Your task to perform on an android device: turn off javascript in the chrome app Image 0: 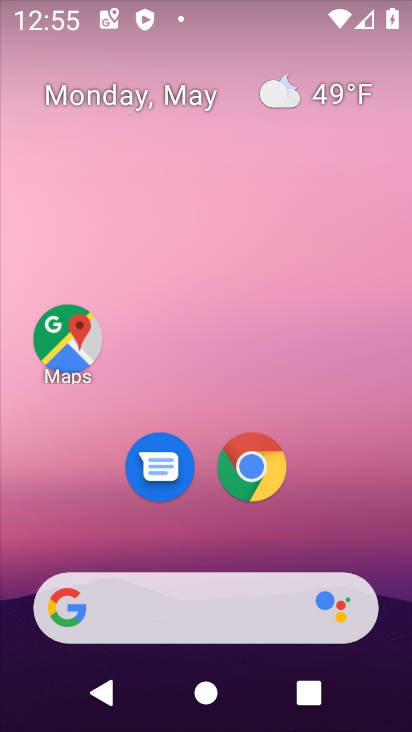
Step 0: drag from (352, 496) to (287, 138)
Your task to perform on an android device: turn off javascript in the chrome app Image 1: 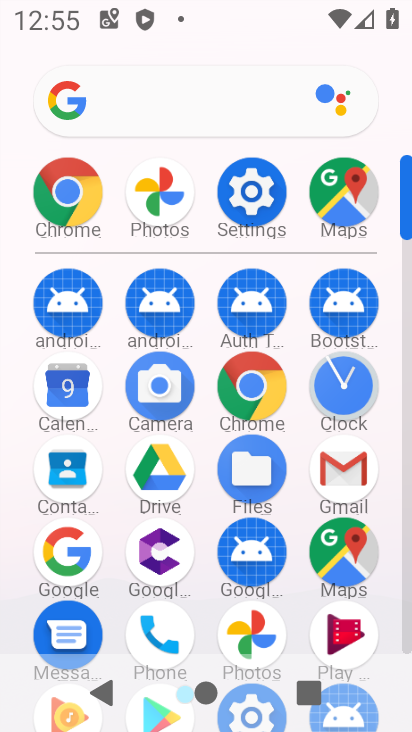
Step 1: click (219, 382)
Your task to perform on an android device: turn off javascript in the chrome app Image 2: 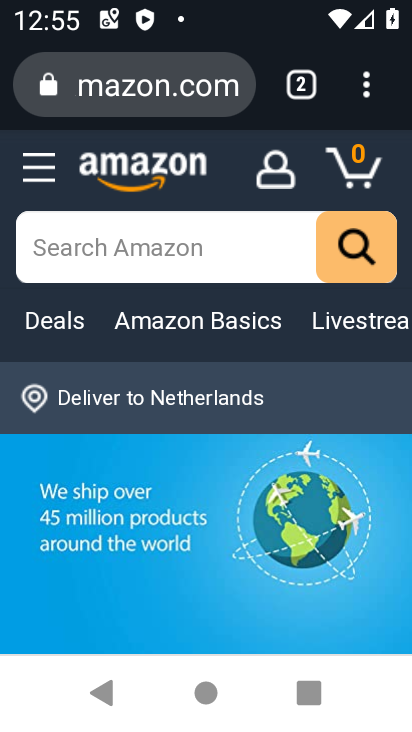
Step 2: drag from (372, 102) to (207, 531)
Your task to perform on an android device: turn off javascript in the chrome app Image 3: 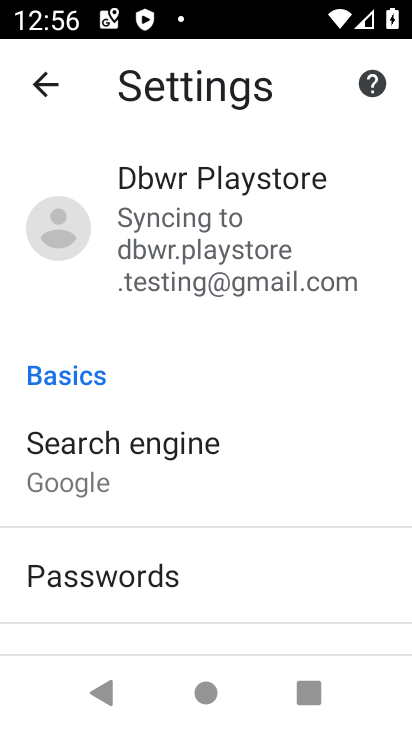
Step 3: drag from (287, 598) to (273, 273)
Your task to perform on an android device: turn off javascript in the chrome app Image 4: 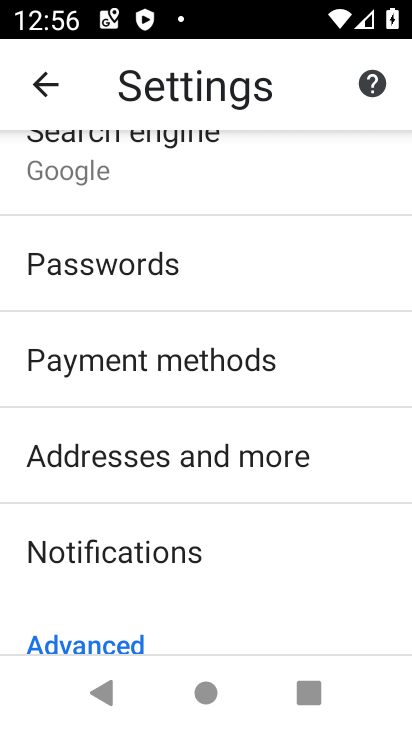
Step 4: drag from (278, 552) to (266, 269)
Your task to perform on an android device: turn off javascript in the chrome app Image 5: 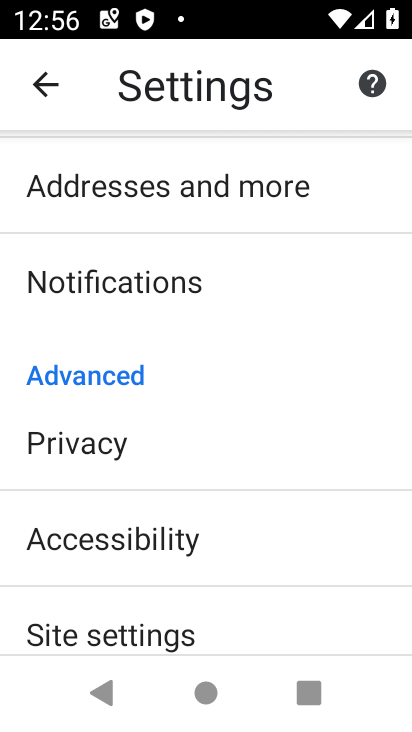
Step 5: drag from (308, 552) to (279, 329)
Your task to perform on an android device: turn off javascript in the chrome app Image 6: 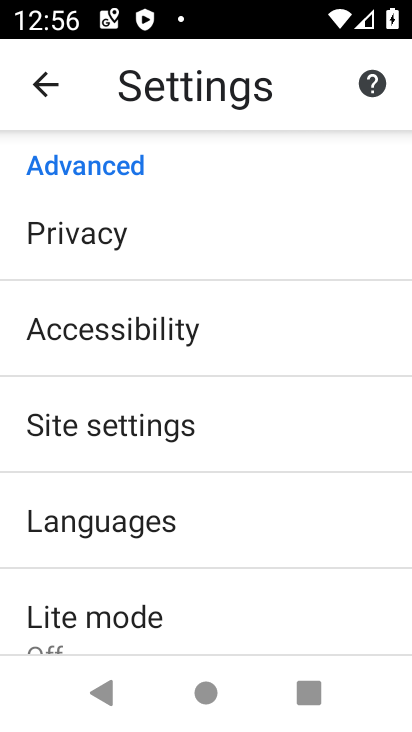
Step 6: click (213, 407)
Your task to perform on an android device: turn off javascript in the chrome app Image 7: 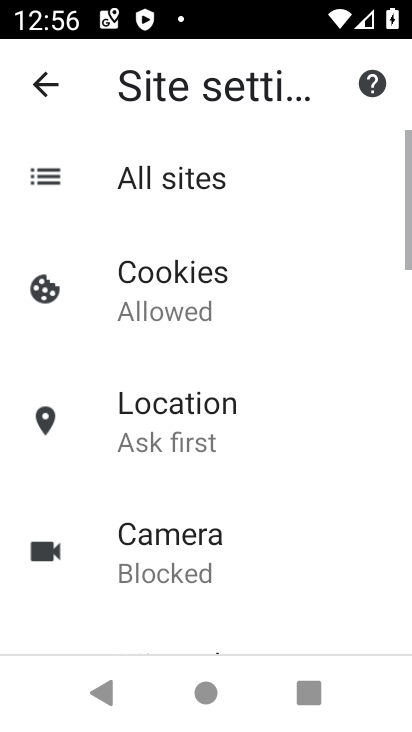
Step 7: drag from (273, 551) to (283, 236)
Your task to perform on an android device: turn off javascript in the chrome app Image 8: 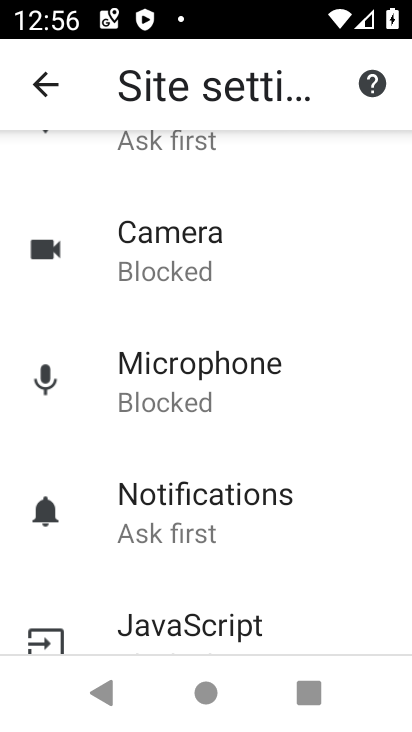
Step 8: drag from (278, 451) to (265, 297)
Your task to perform on an android device: turn off javascript in the chrome app Image 9: 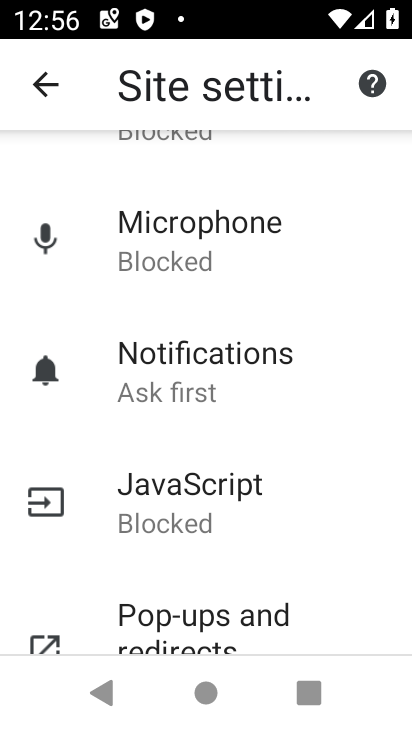
Step 9: click (203, 480)
Your task to perform on an android device: turn off javascript in the chrome app Image 10: 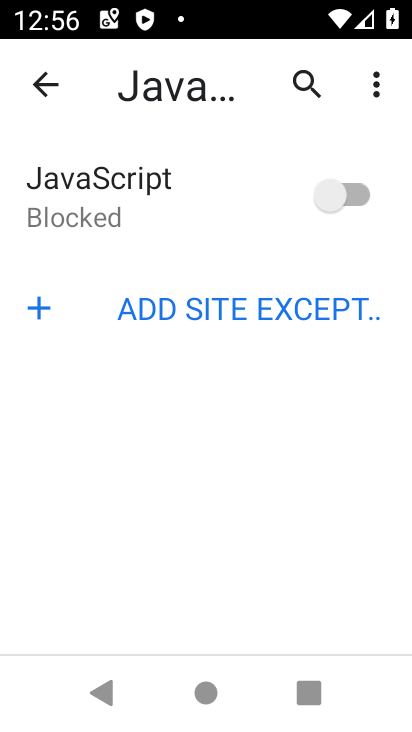
Step 10: task complete